Your task to perform on an android device: Go to Wikipedia Image 0: 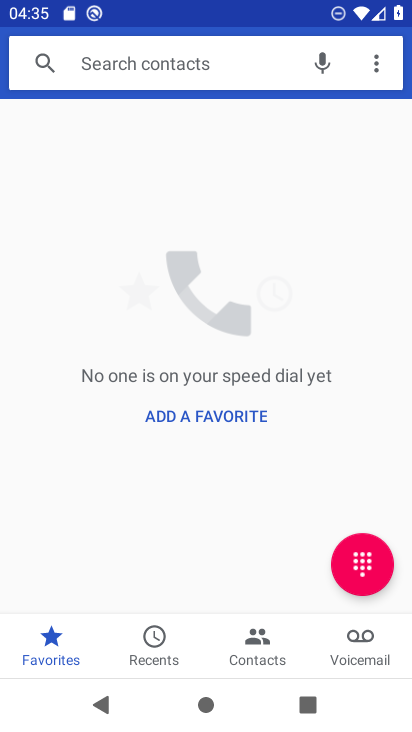
Step 0: press home button
Your task to perform on an android device: Go to Wikipedia Image 1: 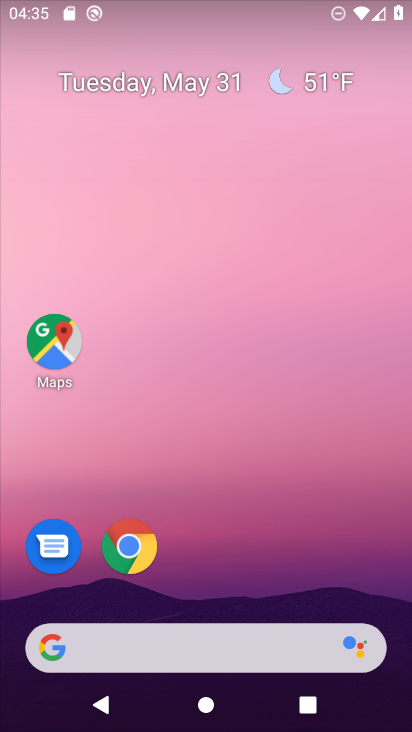
Step 1: click (126, 558)
Your task to perform on an android device: Go to Wikipedia Image 2: 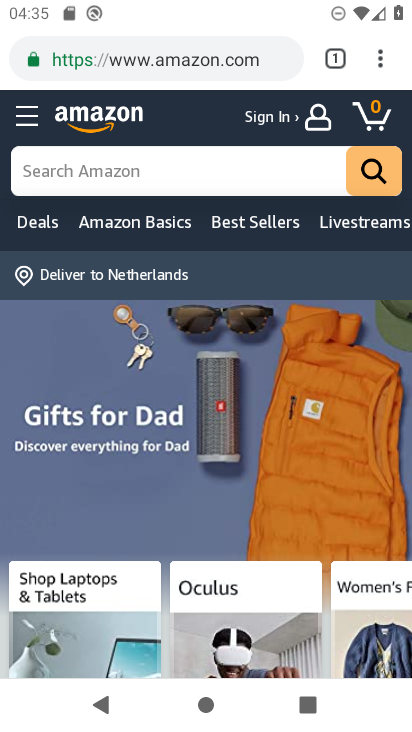
Step 2: press back button
Your task to perform on an android device: Go to Wikipedia Image 3: 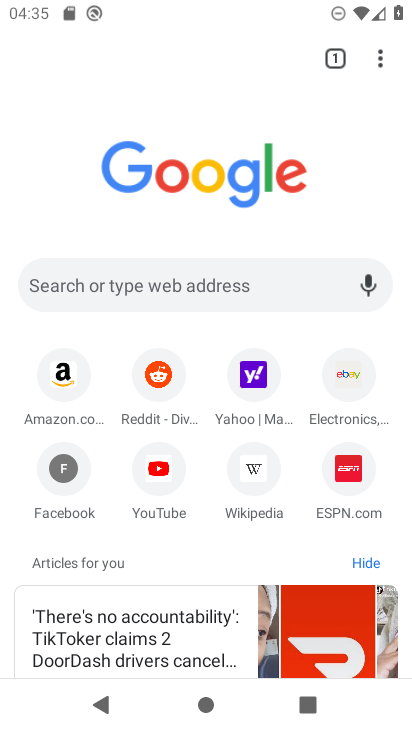
Step 3: click (255, 500)
Your task to perform on an android device: Go to Wikipedia Image 4: 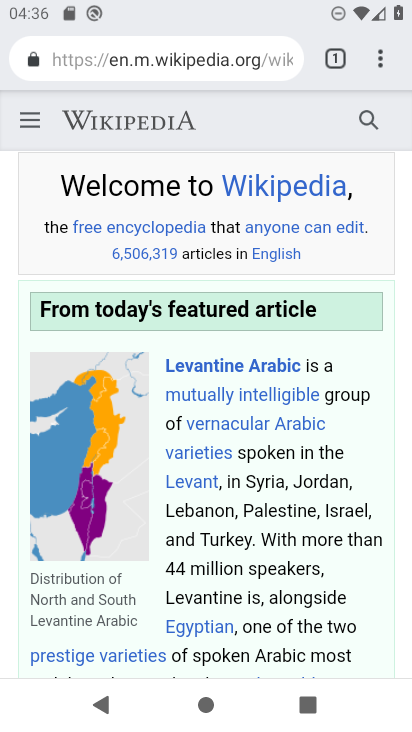
Step 4: task complete